Your task to perform on an android device: check battery use Image 0: 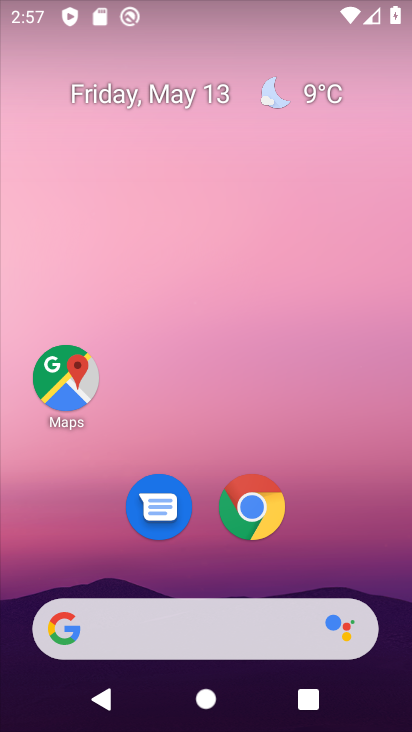
Step 0: drag from (257, 645) to (330, 7)
Your task to perform on an android device: check battery use Image 1: 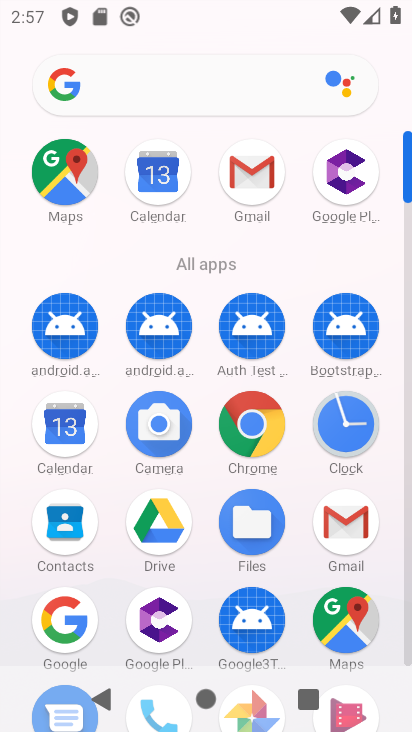
Step 1: drag from (246, 658) to (256, 155)
Your task to perform on an android device: check battery use Image 2: 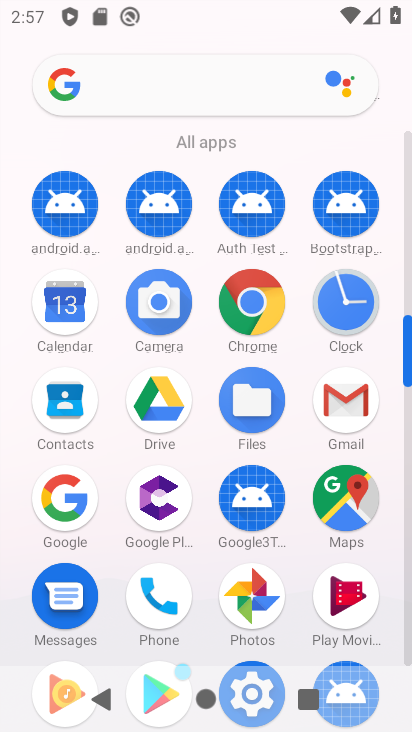
Step 2: drag from (250, 365) to (222, 175)
Your task to perform on an android device: check battery use Image 3: 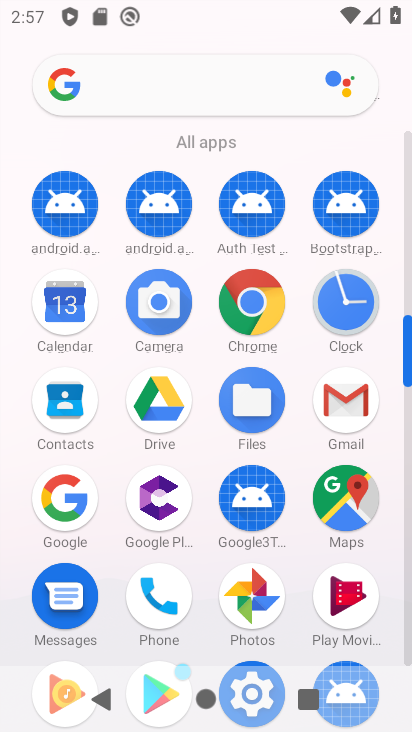
Step 3: click (252, 658)
Your task to perform on an android device: check battery use Image 4: 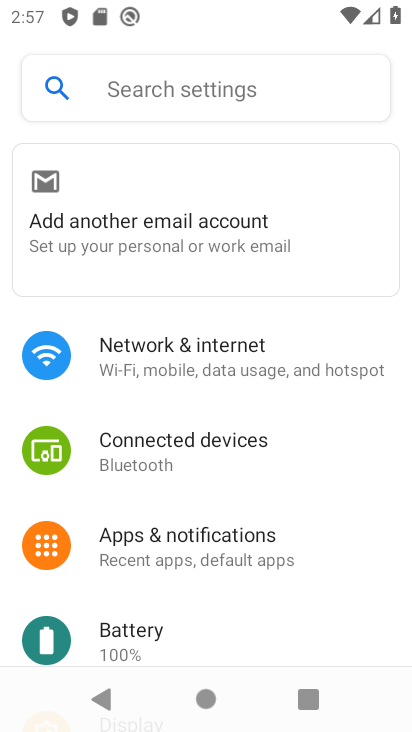
Step 4: drag from (234, 608) to (237, 220)
Your task to perform on an android device: check battery use Image 5: 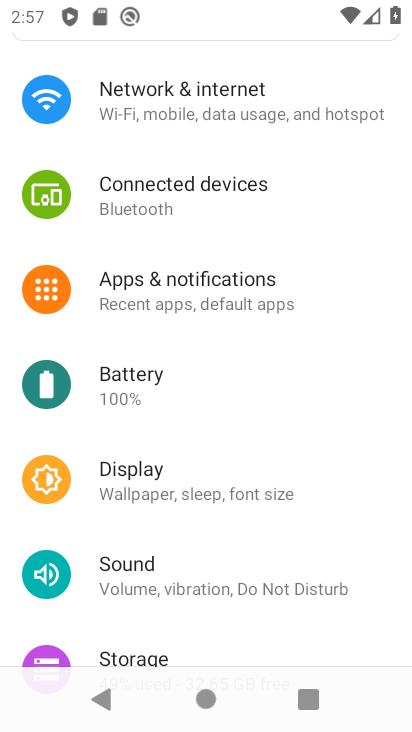
Step 5: click (160, 354)
Your task to perform on an android device: check battery use Image 6: 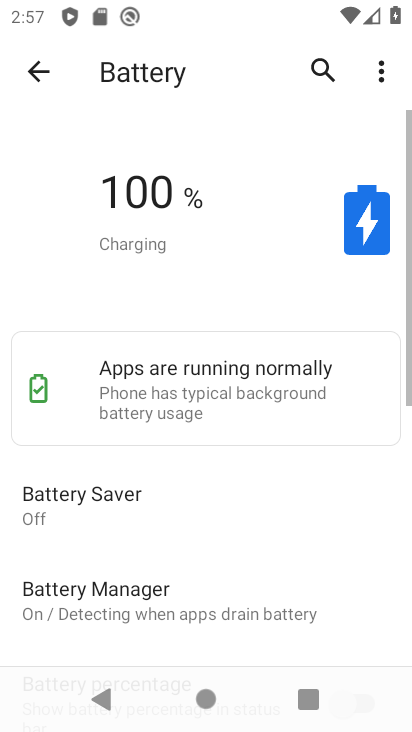
Step 6: click (372, 79)
Your task to perform on an android device: check battery use Image 7: 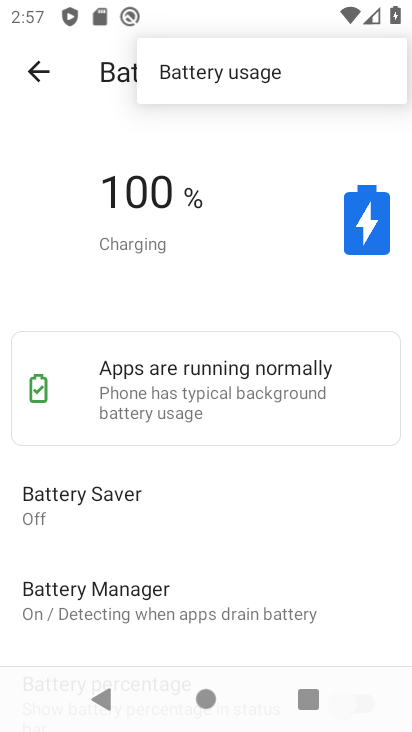
Step 7: click (278, 84)
Your task to perform on an android device: check battery use Image 8: 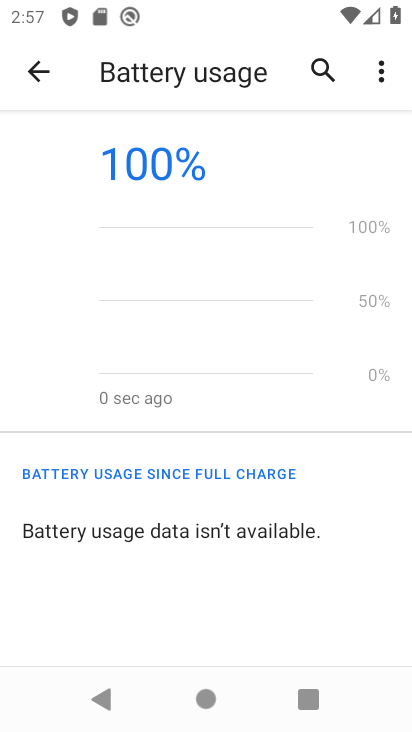
Step 8: click (381, 74)
Your task to perform on an android device: check battery use Image 9: 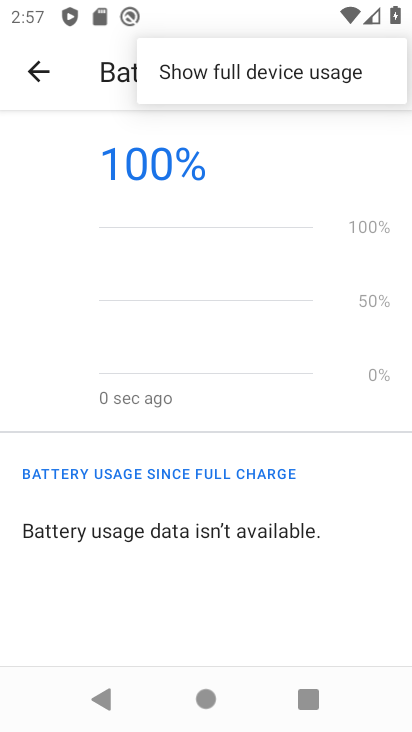
Step 9: click (342, 128)
Your task to perform on an android device: check battery use Image 10: 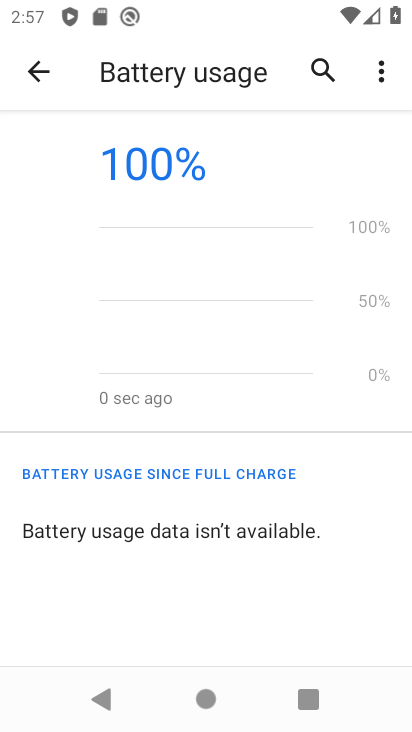
Step 10: task complete